Your task to perform on an android device: create a new album in the google photos Image 0: 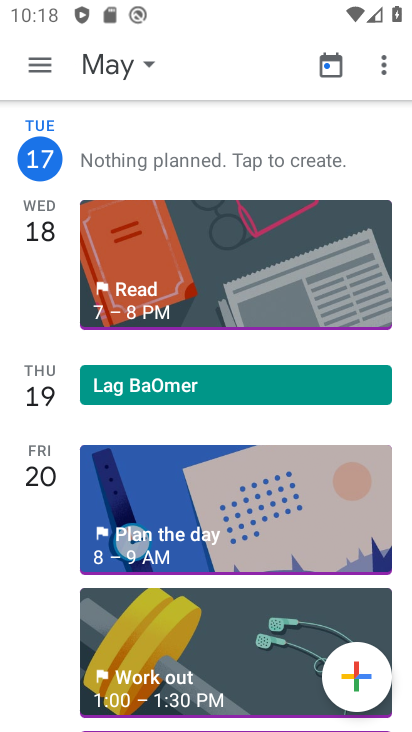
Step 0: press back button
Your task to perform on an android device: create a new album in the google photos Image 1: 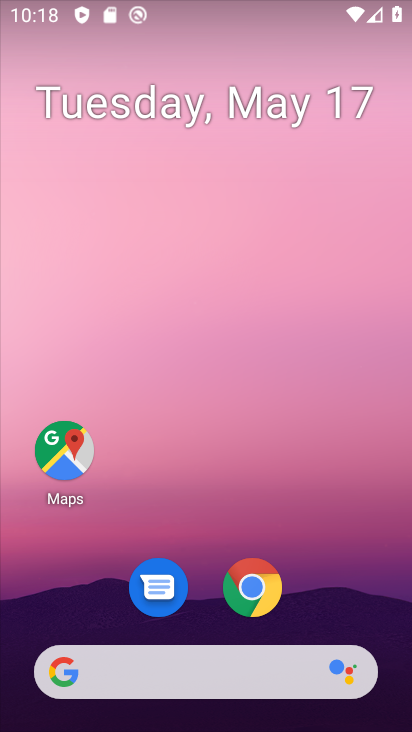
Step 1: drag from (320, 601) to (257, 120)
Your task to perform on an android device: create a new album in the google photos Image 2: 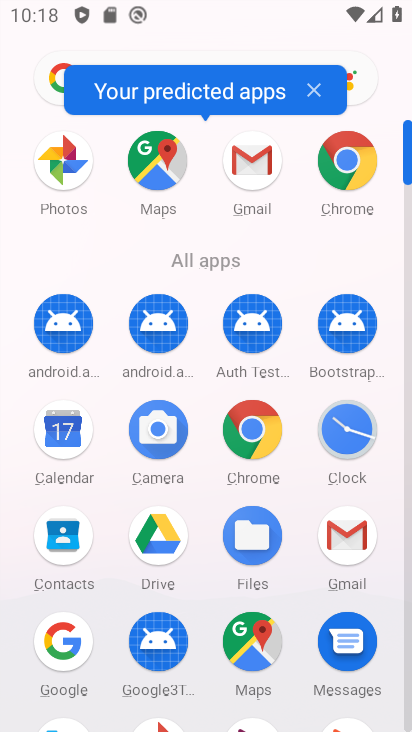
Step 2: click (61, 157)
Your task to perform on an android device: create a new album in the google photos Image 3: 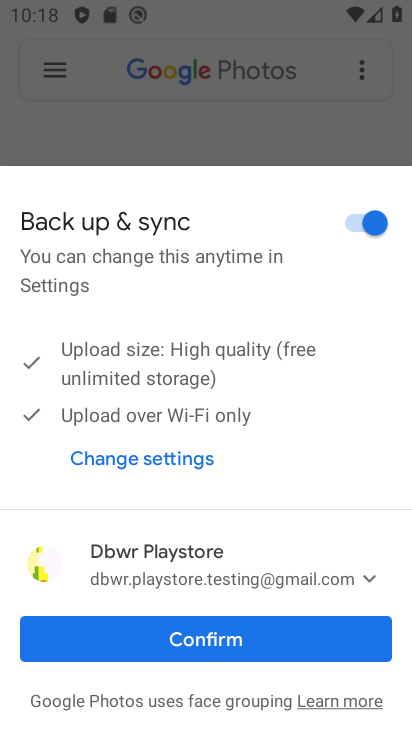
Step 3: click (192, 634)
Your task to perform on an android device: create a new album in the google photos Image 4: 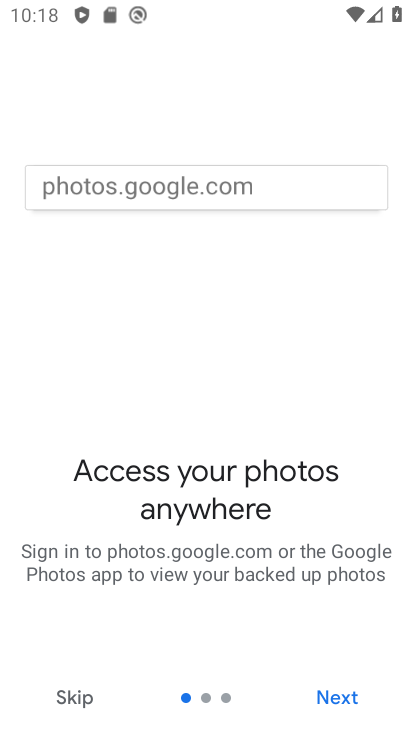
Step 4: click (343, 698)
Your task to perform on an android device: create a new album in the google photos Image 5: 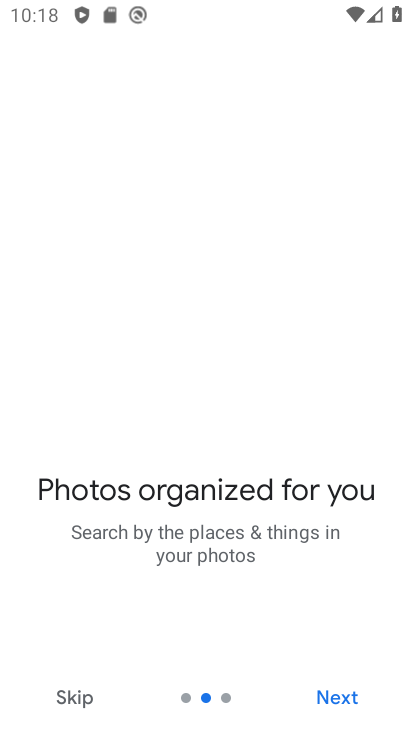
Step 5: click (343, 698)
Your task to perform on an android device: create a new album in the google photos Image 6: 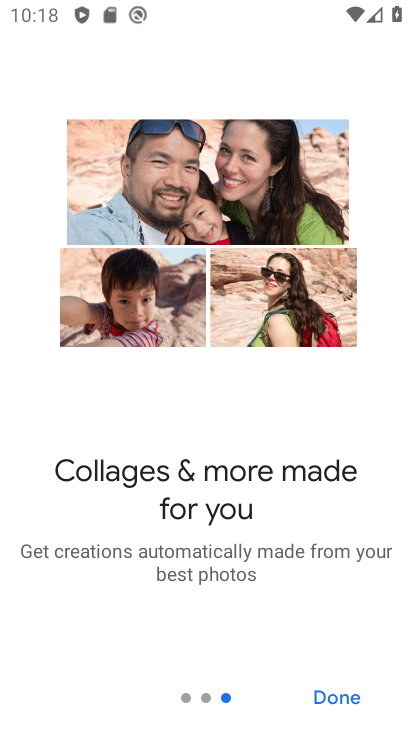
Step 6: click (343, 698)
Your task to perform on an android device: create a new album in the google photos Image 7: 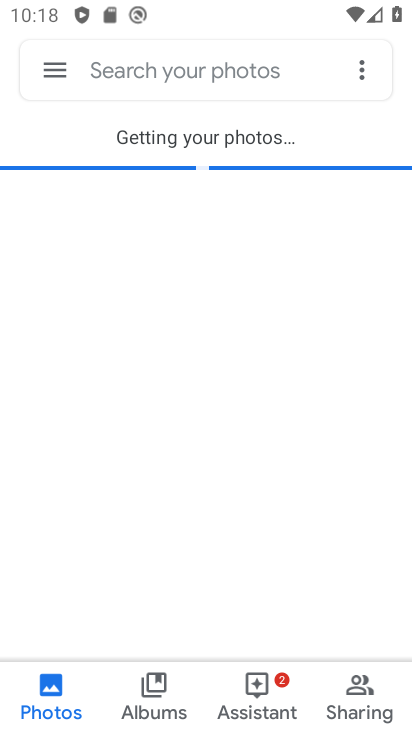
Step 7: click (365, 70)
Your task to perform on an android device: create a new album in the google photos Image 8: 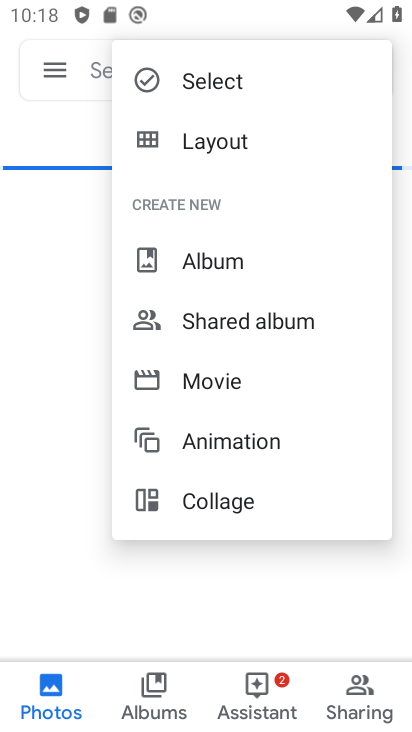
Step 8: click (219, 264)
Your task to perform on an android device: create a new album in the google photos Image 9: 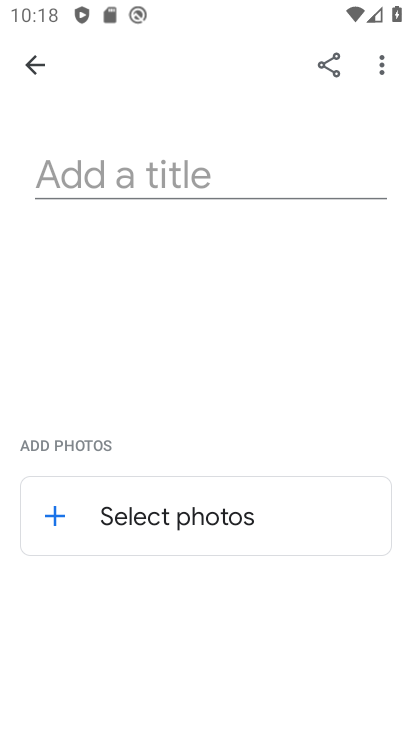
Step 9: click (206, 181)
Your task to perform on an android device: create a new album in the google photos Image 10: 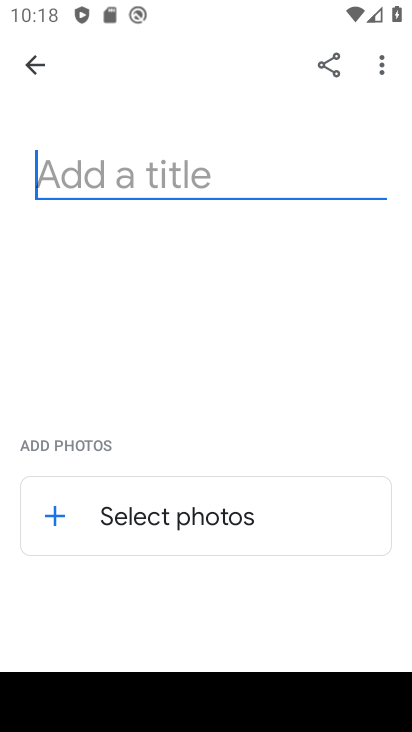
Step 10: type "Pushp"
Your task to perform on an android device: create a new album in the google photos Image 11: 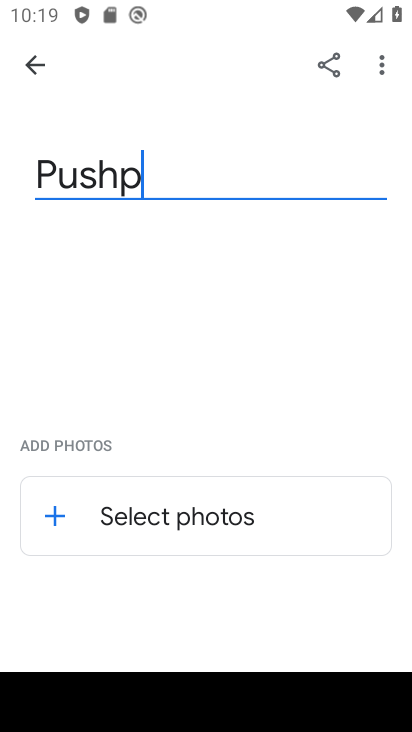
Step 11: click (64, 517)
Your task to perform on an android device: create a new album in the google photos Image 12: 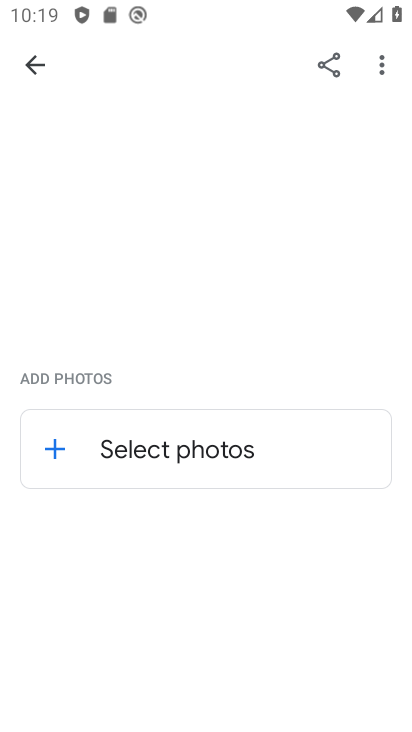
Step 12: click (179, 445)
Your task to perform on an android device: create a new album in the google photos Image 13: 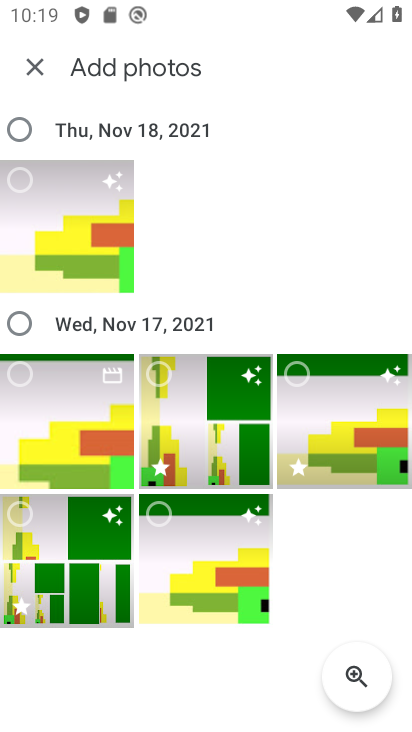
Step 13: click (16, 130)
Your task to perform on an android device: create a new album in the google photos Image 14: 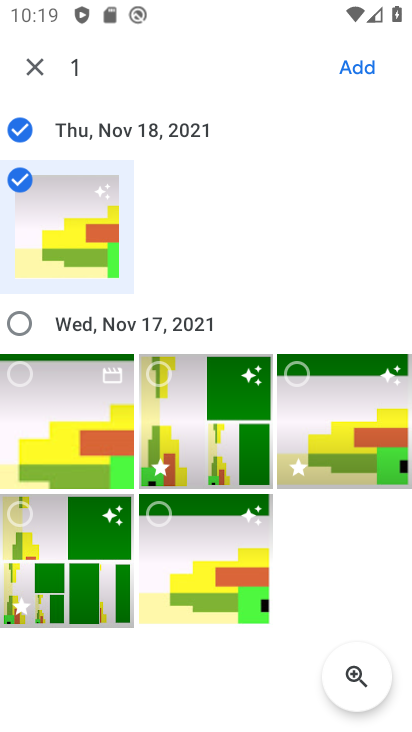
Step 14: click (367, 70)
Your task to perform on an android device: create a new album in the google photos Image 15: 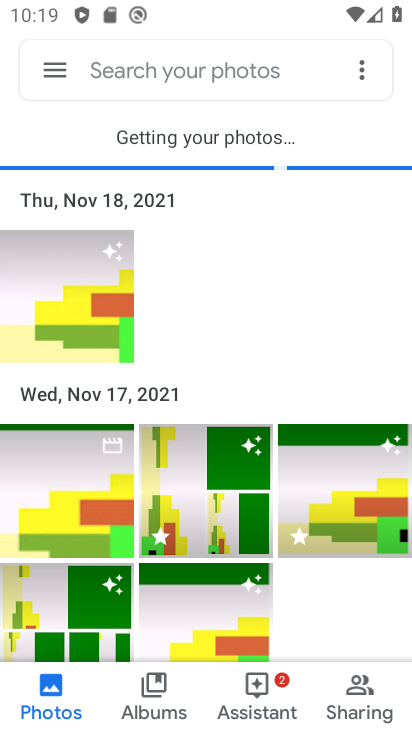
Step 15: task complete